Your task to perform on an android device: turn on the 24-hour format for clock Image 0: 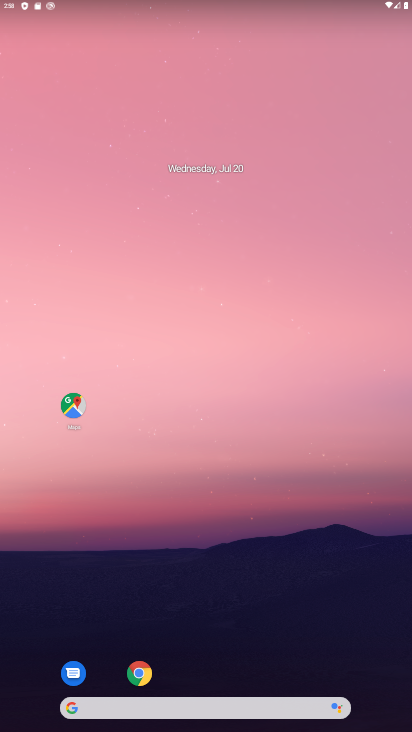
Step 0: drag from (295, 650) to (260, 231)
Your task to perform on an android device: turn on the 24-hour format for clock Image 1: 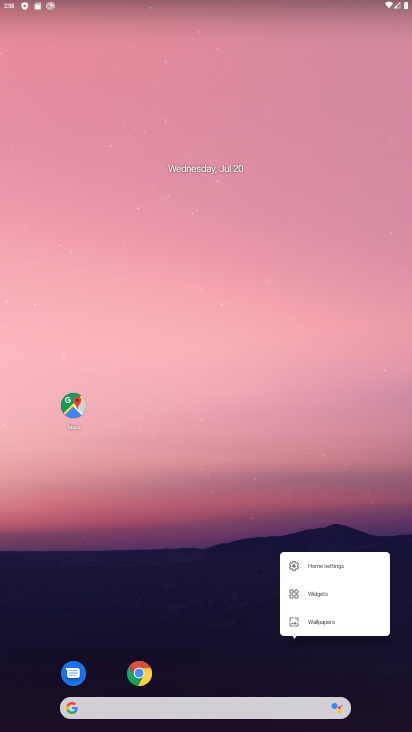
Step 1: drag from (200, 668) to (201, 293)
Your task to perform on an android device: turn on the 24-hour format for clock Image 2: 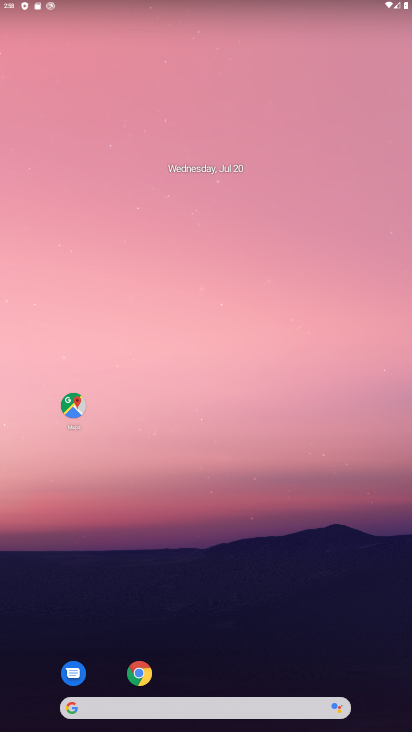
Step 2: drag from (261, 639) to (58, 323)
Your task to perform on an android device: turn on the 24-hour format for clock Image 3: 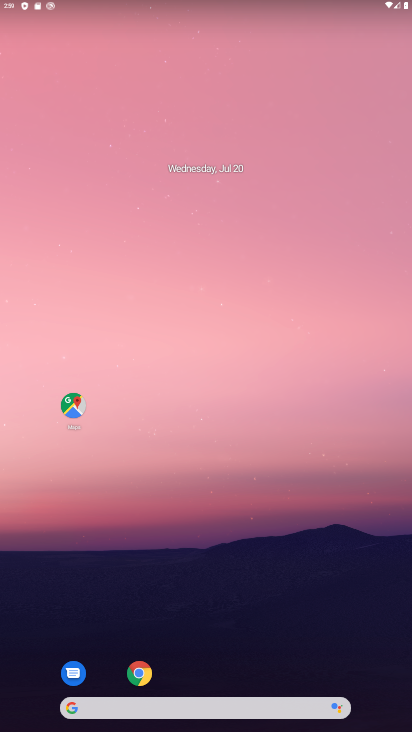
Step 3: drag from (273, 366) to (266, 201)
Your task to perform on an android device: turn on the 24-hour format for clock Image 4: 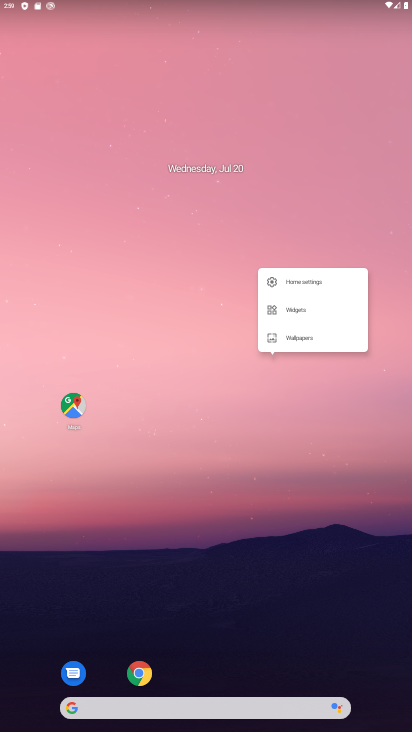
Step 4: drag from (268, 142) to (260, 61)
Your task to perform on an android device: turn on the 24-hour format for clock Image 5: 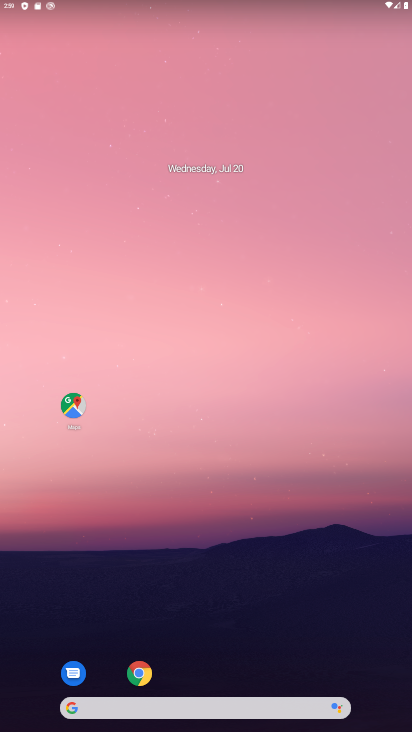
Step 5: drag from (358, 671) to (305, 121)
Your task to perform on an android device: turn on the 24-hour format for clock Image 6: 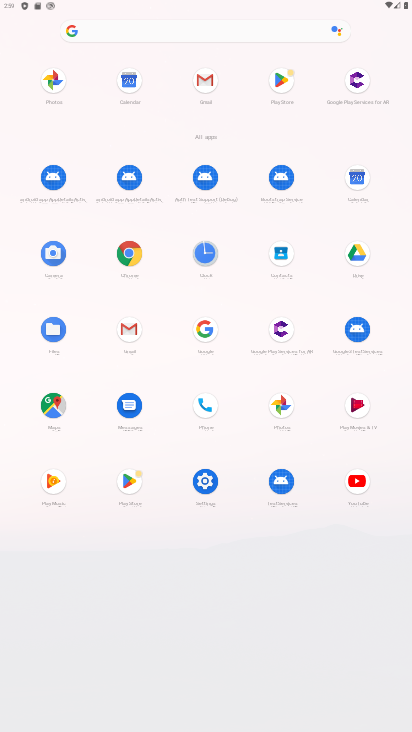
Step 6: click (198, 253)
Your task to perform on an android device: turn on the 24-hour format for clock Image 7: 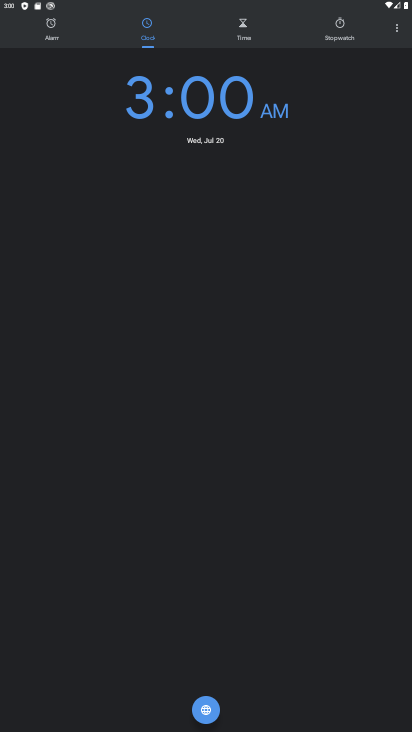
Step 7: click (398, 29)
Your task to perform on an android device: turn on the 24-hour format for clock Image 8: 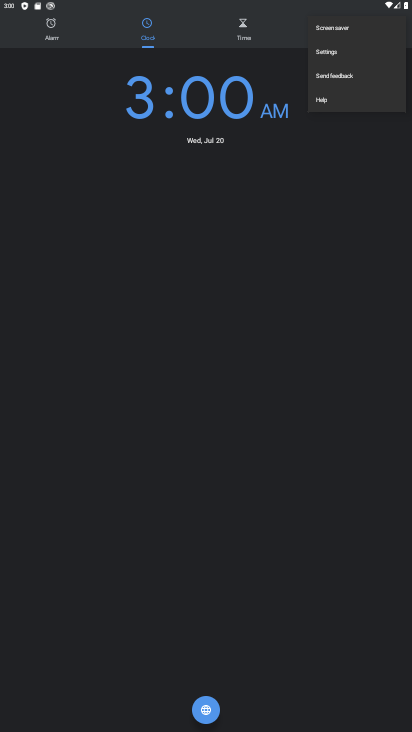
Step 8: click (346, 53)
Your task to perform on an android device: turn on the 24-hour format for clock Image 9: 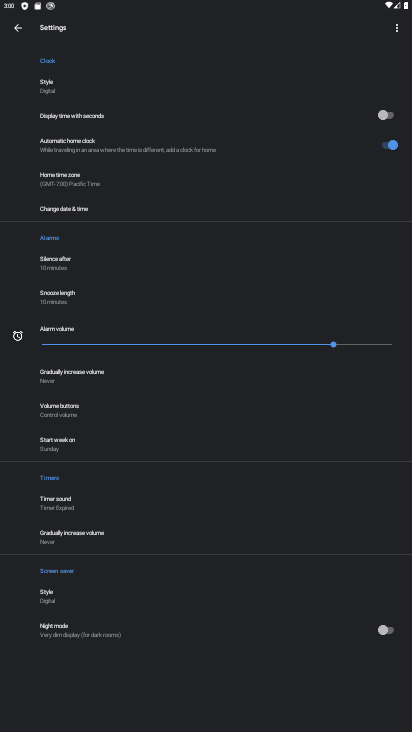
Step 9: click (223, 210)
Your task to perform on an android device: turn on the 24-hour format for clock Image 10: 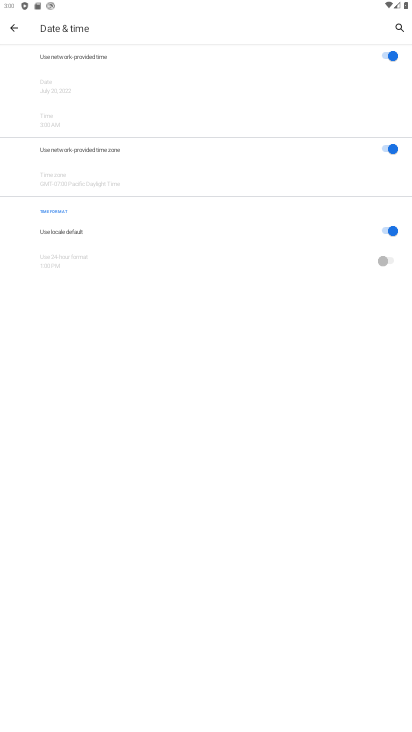
Step 10: click (385, 236)
Your task to perform on an android device: turn on the 24-hour format for clock Image 11: 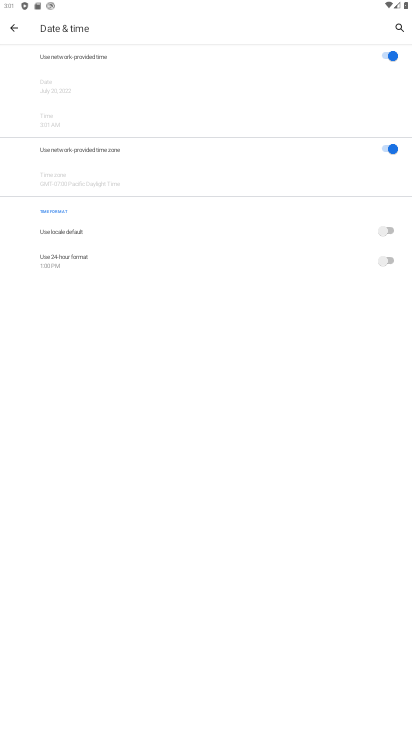
Step 11: click (385, 266)
Your task to perform on an android device: turn on the 24-hour format for clock Image 12: 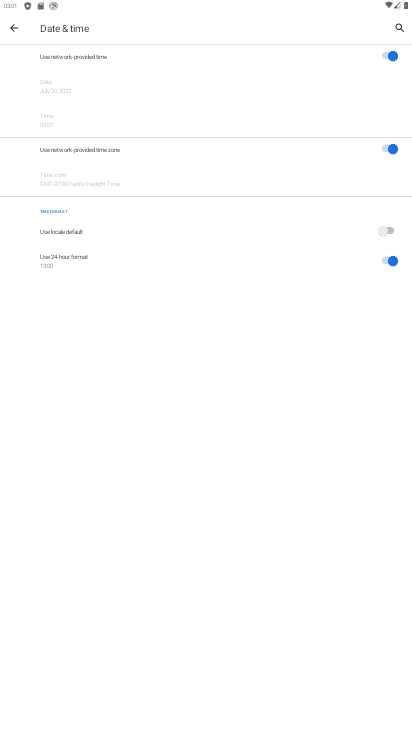
Step 12: task complete